Your task to perform on an android device: search for starred emails in the gmail app Image 0: 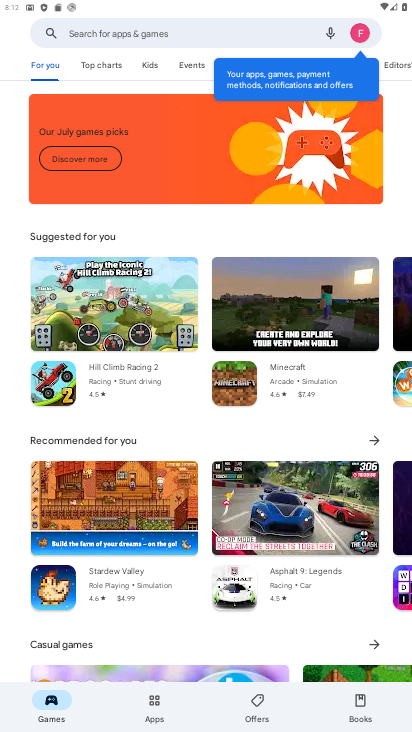
Step 0: press home button
Your task to perform on an android device: search for starred emails in the gmail app Image 1: 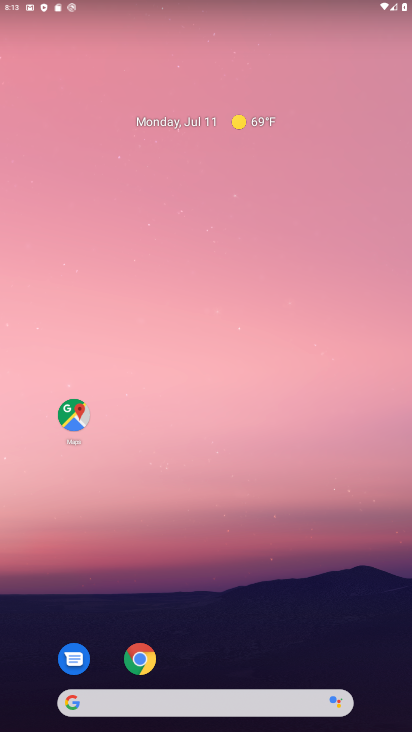
Step 1: drag from (201, 647) to (305, 164)
Your task to perform on an android device: search for starred emails in the gmail app Image 2: 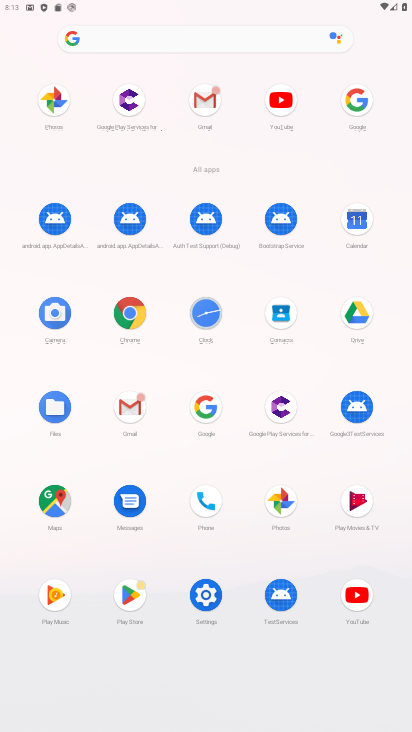
Step 2: click (136, 407)
Your task to perform on an android device: search for starred emails in the gmail app Image 3: 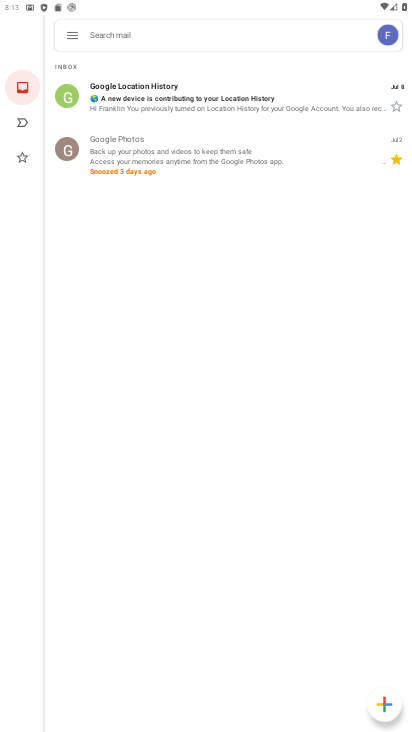
Step 3: click (76, 40)
Your task to perform on an android device: search for starred emails in the gmail app Image 4: 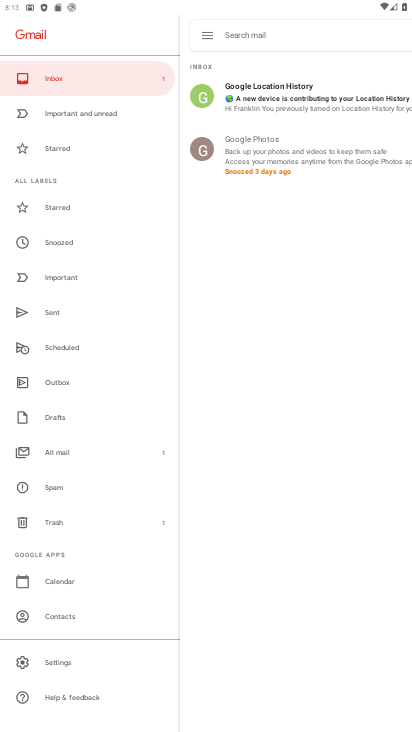
Step 4: click (111, 140)
Your task to perform on an android device: search for starred emails in the gmail app Image 5: 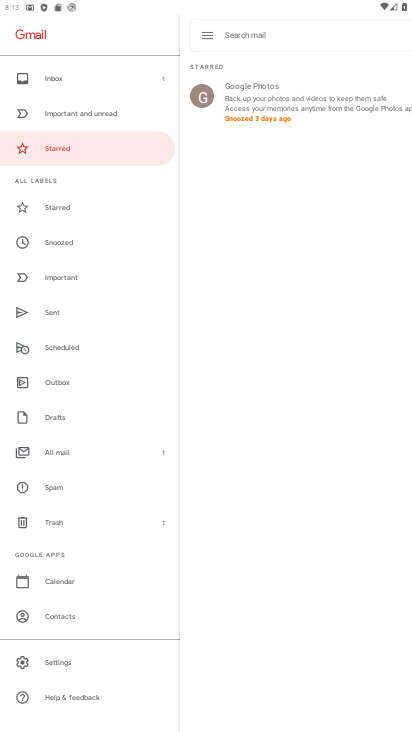
Step 5: task complete